Your task to perform on an android device: What's the weather today? Image 0: 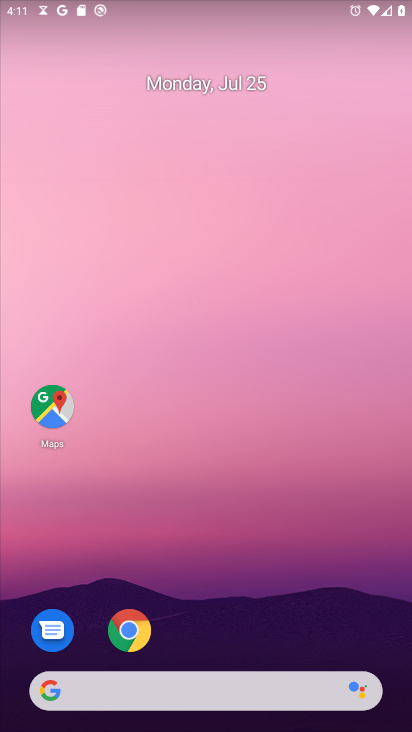
Step 0: drag from (195, 688) to (185, 37)
Your task to perform on an android device: What's the weather today? Image 1: 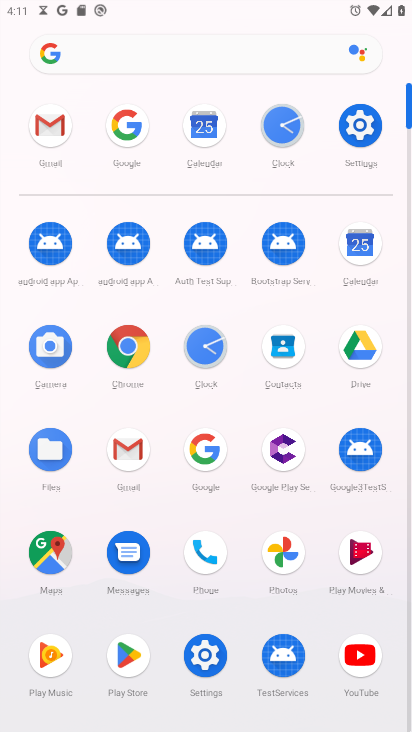
Step 1: click (201, 443)
Your task to perform on an android device: What's the weather today? Image 2: 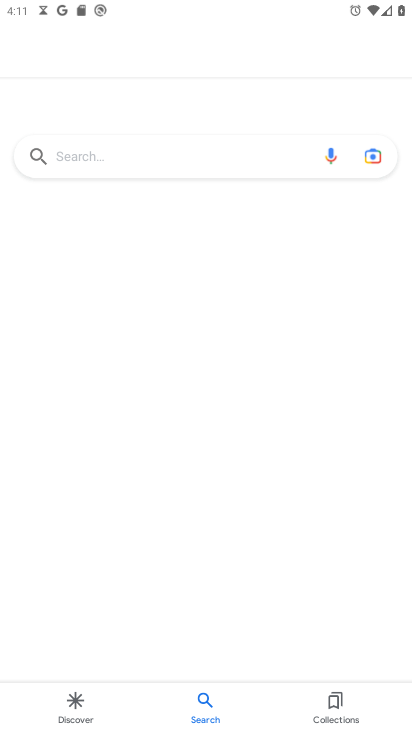
Step 2: click (166, 156)
Your task to perform on an android device: What's the weather today? Image 3: 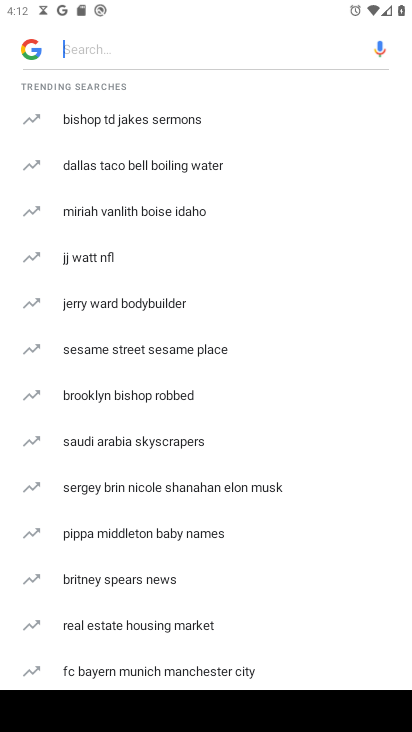
Step 3: type "What's the weather today?"
Your task to perform on an android device: What's the weather today? Image 4: 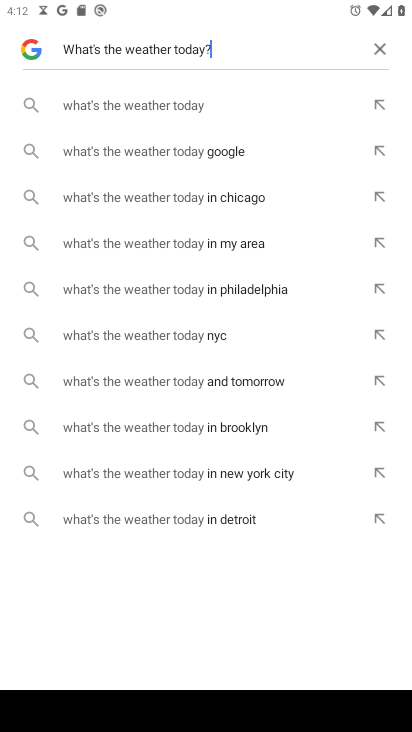
Step 4: type ""
Your task to perform on an android device: What's the weather today? Image 5: 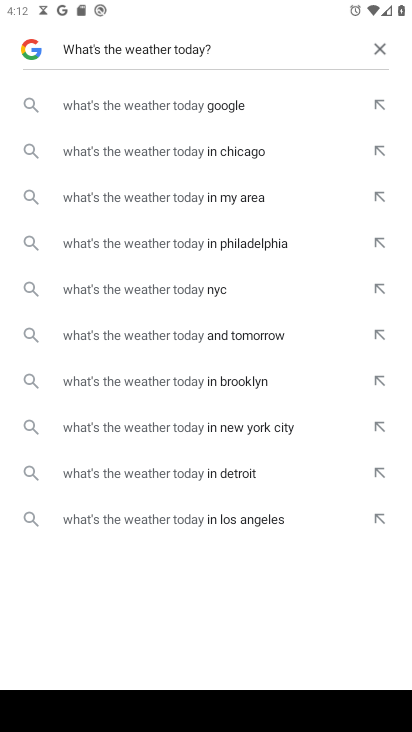
Step 5: click (214, 152)
Your task to perform on an android device: What's the weather today? Image 6: 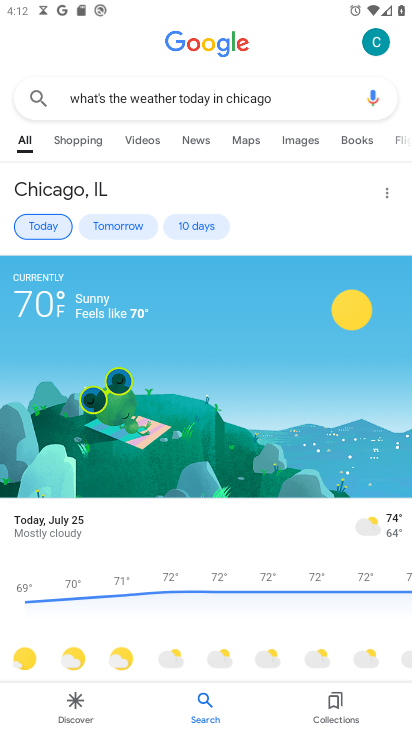
Step 6: task complete